Your task to perform on an android device: refresh tabs in the chrome app Image 0: 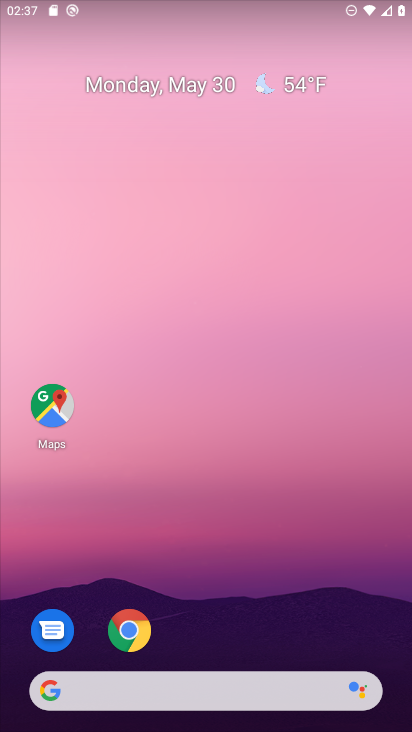
Step 0: click (127, 644)
Your task to perform on an android device: refresh tabs in the chrome app Image 1: 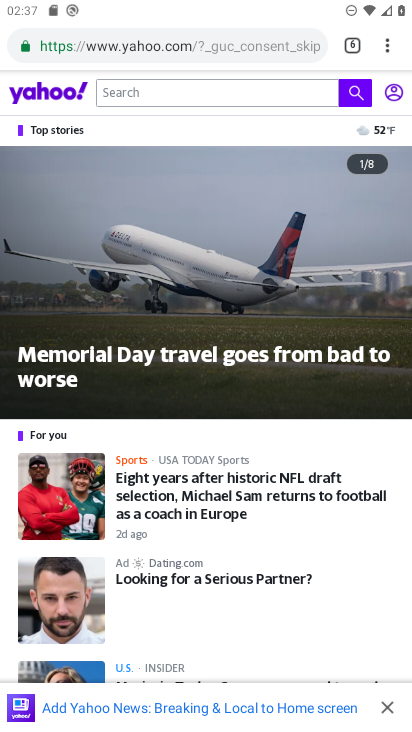
Step 1: click (387, 52)
Your task to perform on an android device: refresh tabs in the chrome app Image 2: 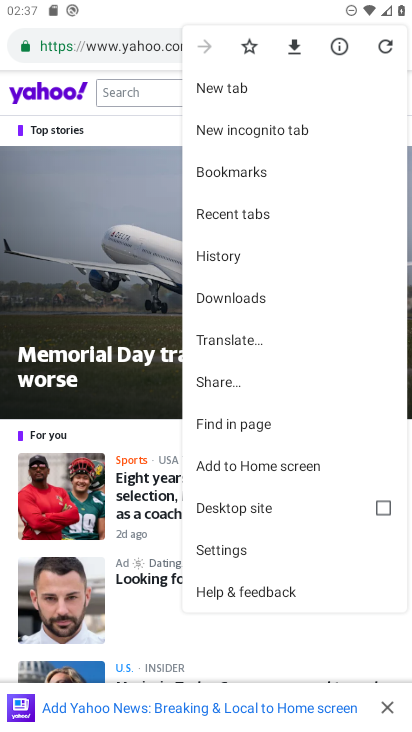
Step 2: click (384, 51)
Your task to perform on an android device: refresh tabs in the chrome app Image 3: 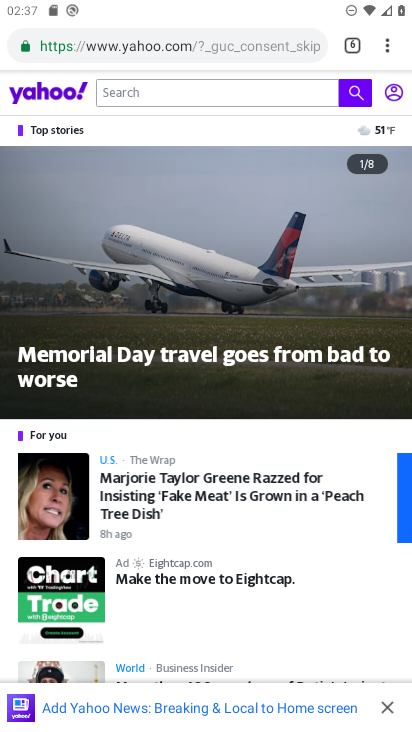
Step 3: task complete